Your task to perform on an android device: allow cookies in the chrome app Image 0: 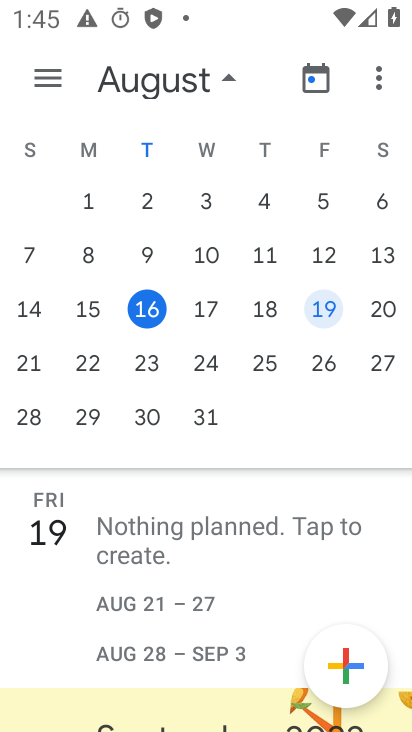
Step 0: press home button
Your task to perform on an android device: allow cookies in the chrome app Image 1: 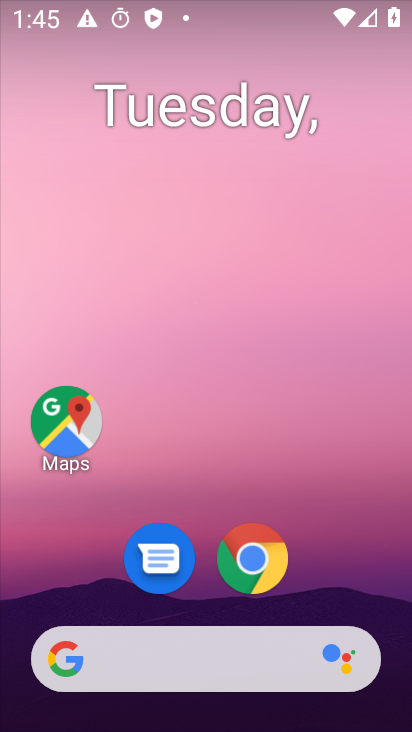
Step 1: click (246, 595)
Your task to perform on an android device: allow cookies in the chrome app Image 2: 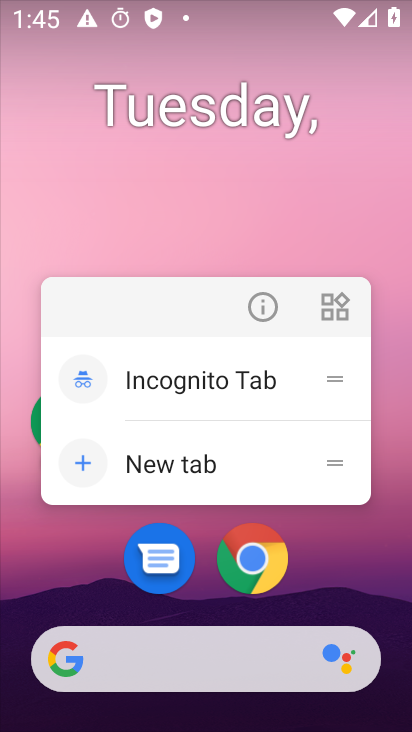
Step 2: click (250, 530)
Your task to perform on an android device: allow cookies in the chrome app Image 3: 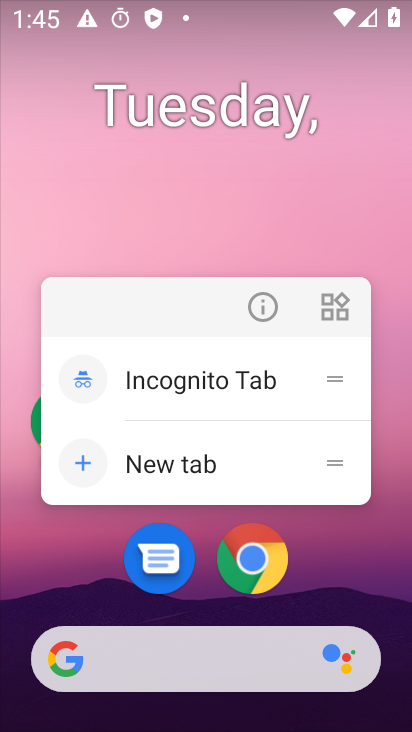
Step 3: click (250, 530)
Your task to perform on an android device: allow cookies in the chrome app Image 4: 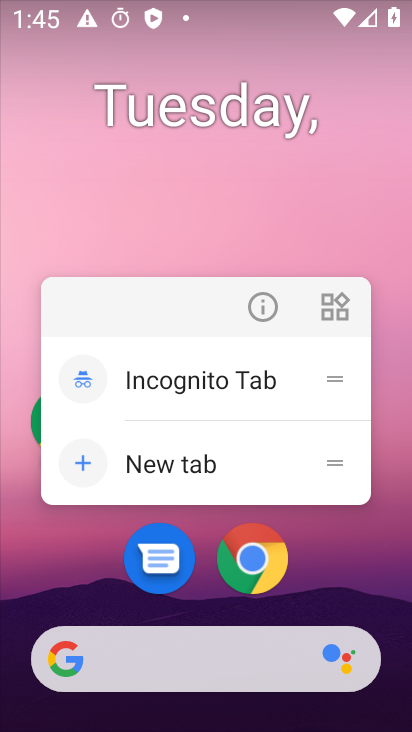
Step 4: click (250, 530)
Your task to perform on an android device: allow cookies in the chrome app Image 5: 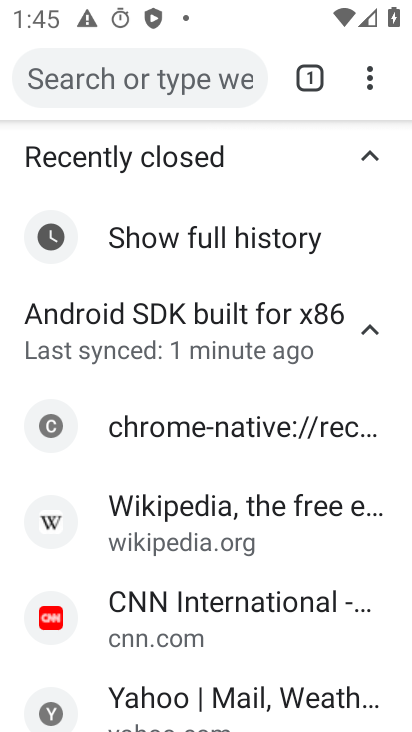
Step 5: click (379, 81)
Your task to perform on an android device: allow cookies in the chrome app Image 6: 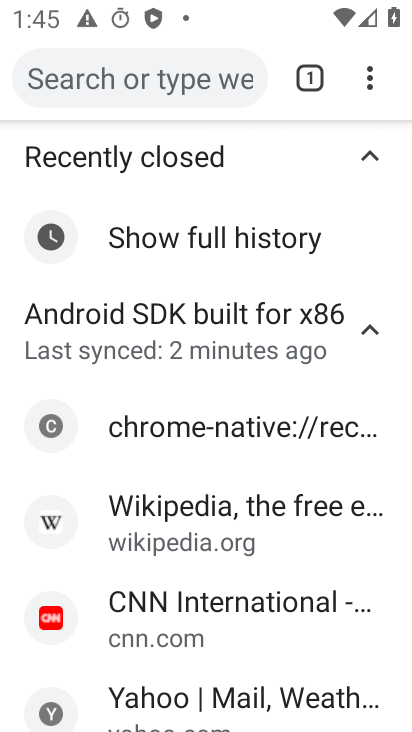
Step 6: click (359, 69)
Your task to perform on an android device: allow cookies in the chrome app Image 7: 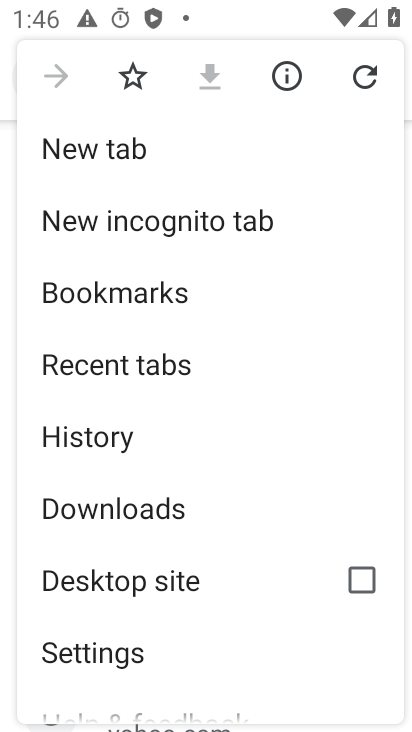
Step 7: click (149, 653)
Your task to perform on an android device: allow cookies in the chrome app Image 8: 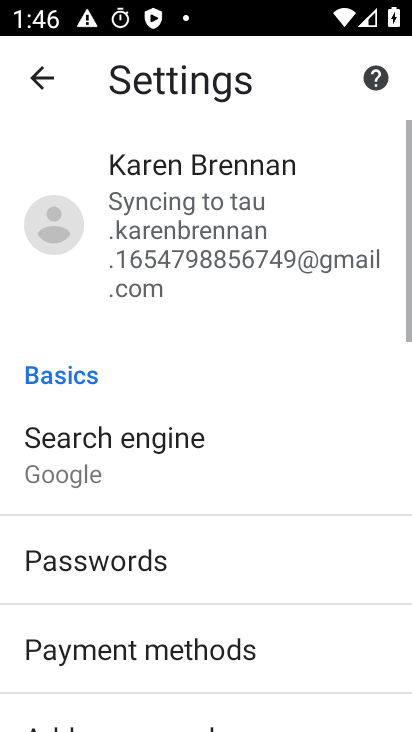
Step 8: drag from (150, 644) to (135, 321)
Your task to perform on an android device: allow cookies in the chrome app Image 9: 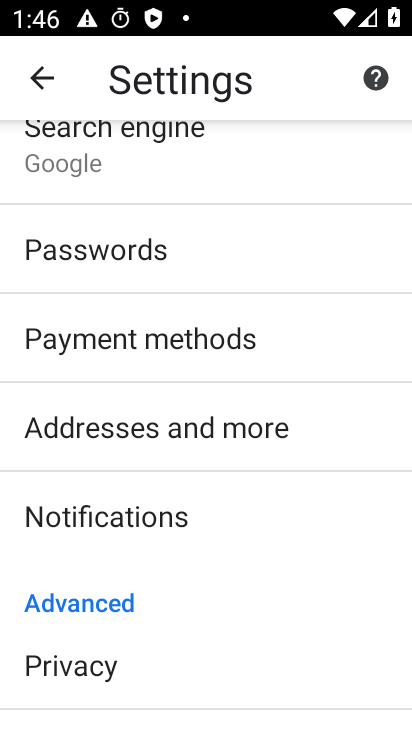
Step 9: drag from (150, 534) to (151, 285)
Your task to perform on an android device: allow cookies in the chrome app Image 10: 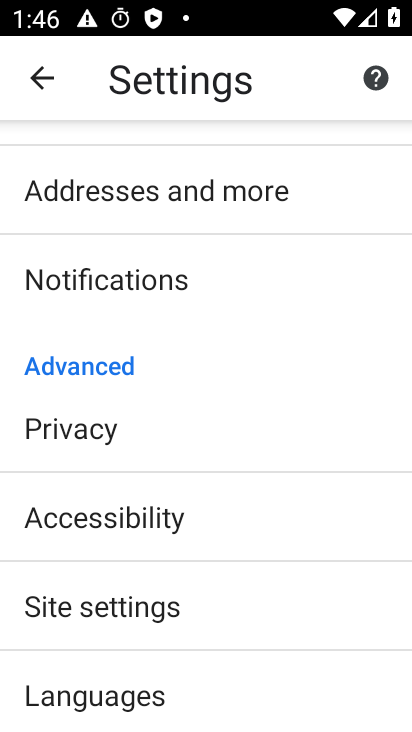
Step 10: click (136, 592)
Your task to perform on an android device: allow cookies in the chrome app Image 11: 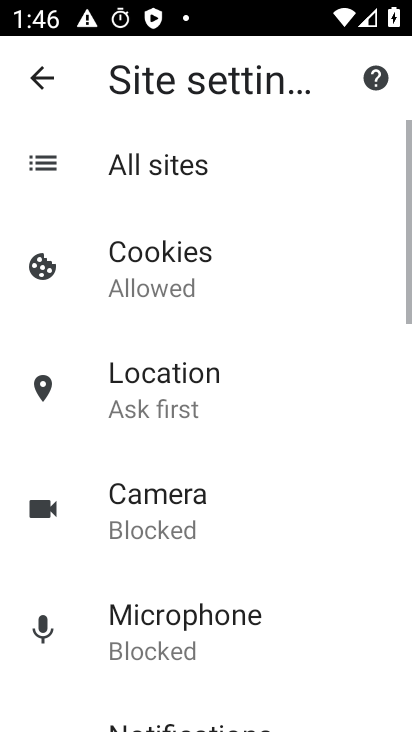
Step 11: click (167, 245)
Your task to perform on an android device: allow cookies in the chrome app Image 12: 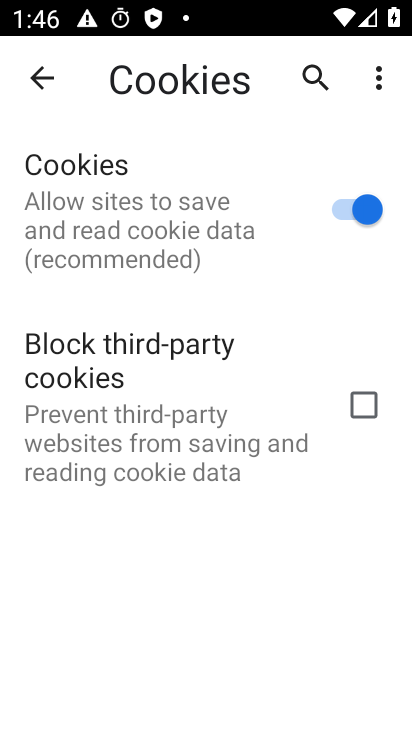
Step 12: task complete